Your task to perform on an android device: Do I have any events this weekend? Image 0: 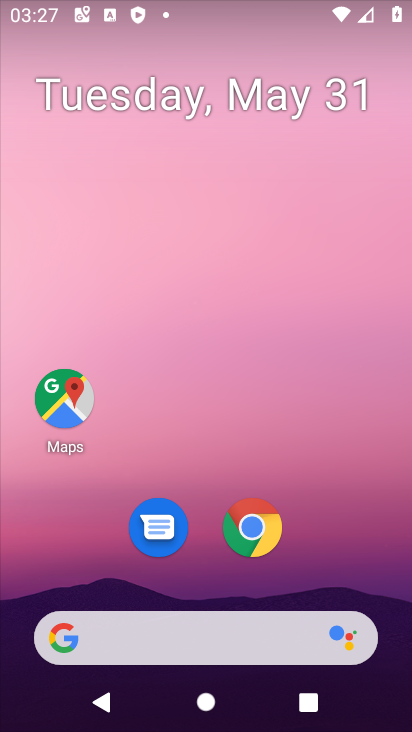
Step 0: drag from (399, 640) to (297, 85)
Your task to perform on an android device: Do I have any events this weekend? Image 1: 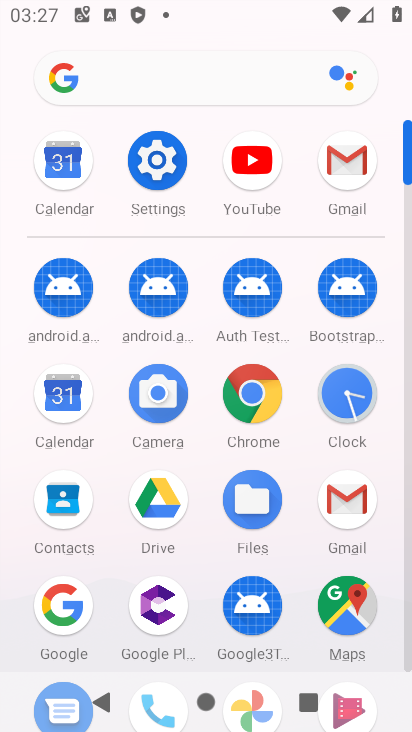
Step 1: click (409, 643)
Your task to perform on an android device: Do I have any events this weekend? Image 2: 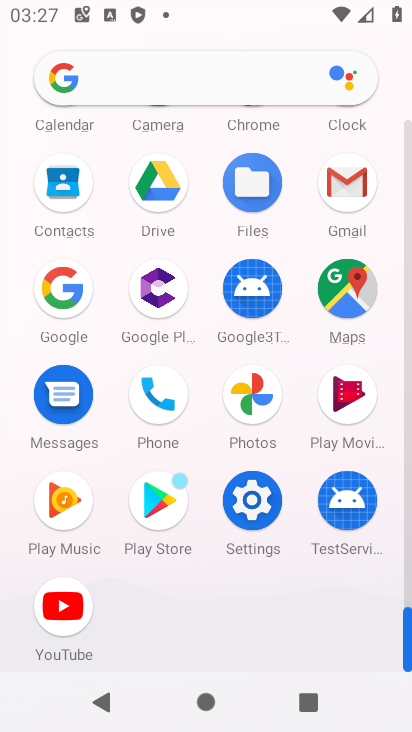
Step 2: click (410, 230)
Your task to perform on an android device: Do I have any events this weekend? Image 3: 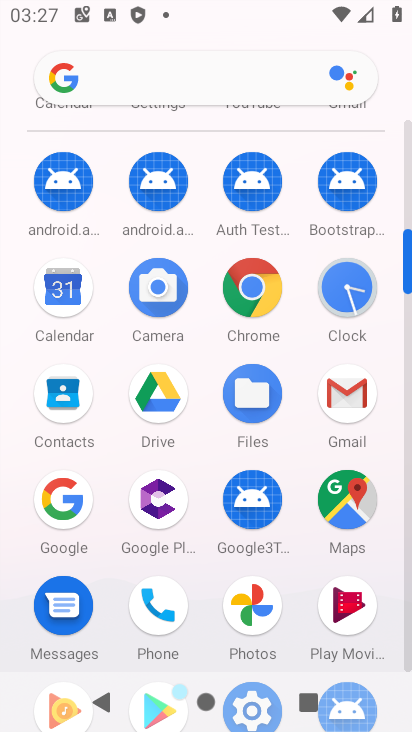
Step 3: click (65, 289)
Your task to perform on an android device: Do I have any events this weekend? Image 4: 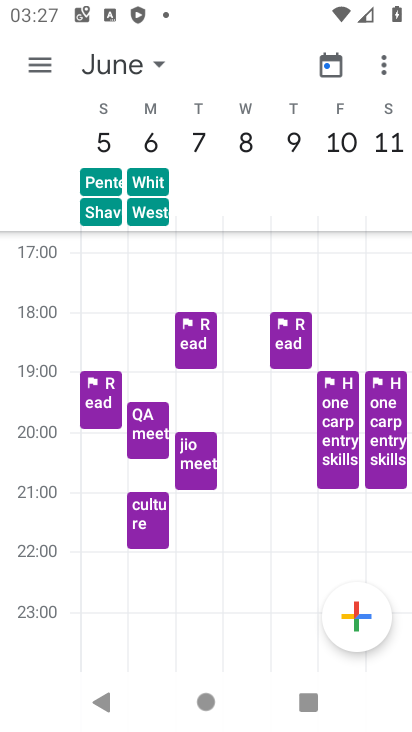
Step 4: click (135, 60)
Your task to perform on an android device: Do I have any events this weekend? Image 5: 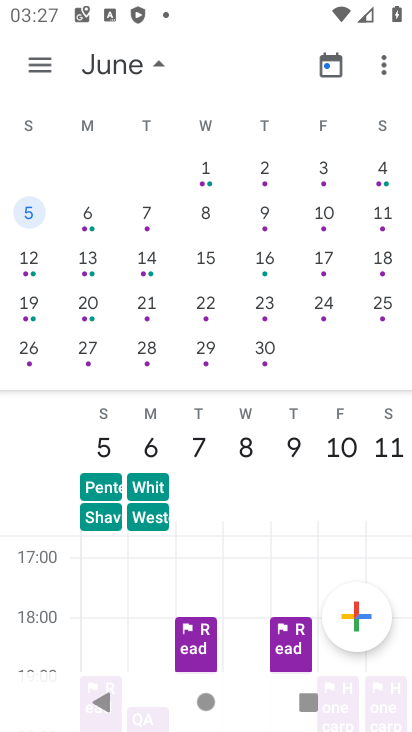
Step 5: task complete